Your task to perform on an android device: Open Amazon Image 0: 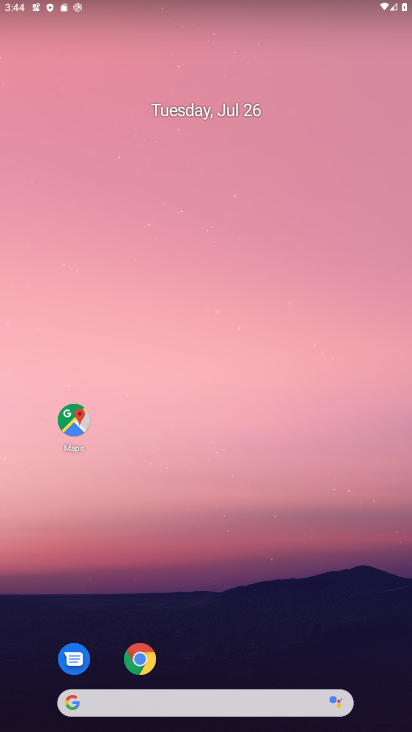
Step 0: click (135, 659)
Your task to perform on an android device: Open Amazon Image 1: 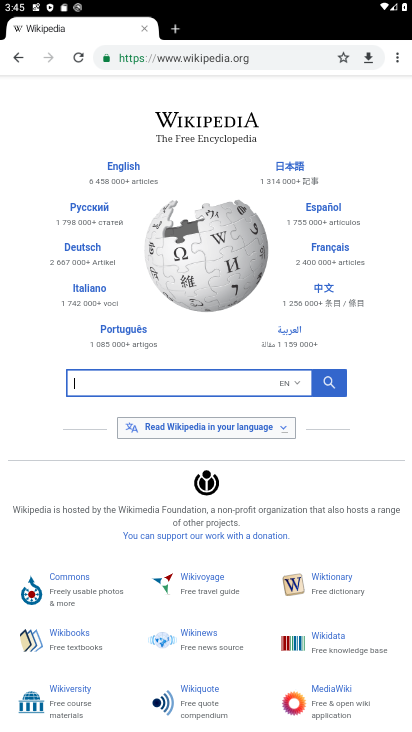
Step 1: click (245, 56)
Your task to perform on an android device: Open Amazon Image 2: 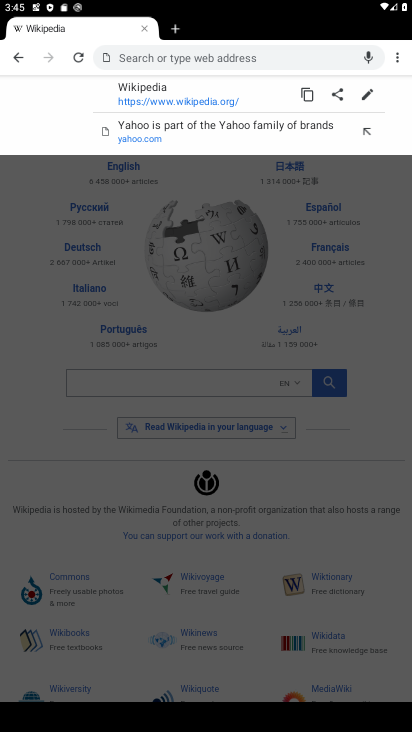
Step 2: type "amazon"
Your task to perform on an android device: Open Amazon Image 3: 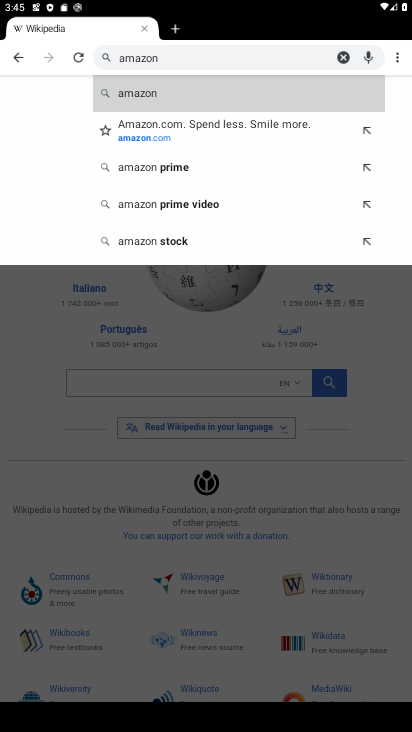
Step 3: click (310, 95)
Your task to perform on an android device: Open Amazon Image 4: 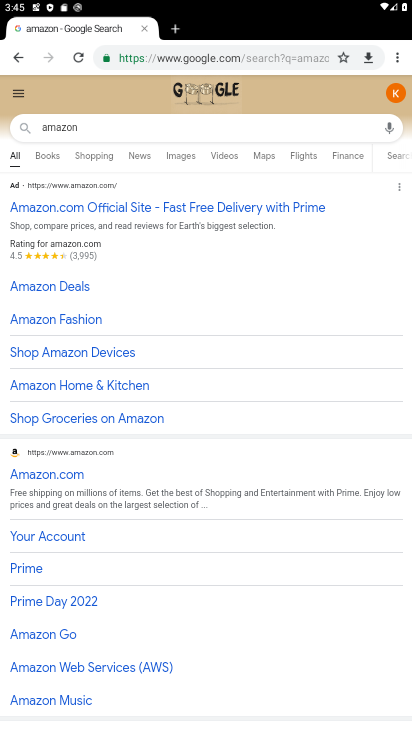
Step 4: click (125, 209)
Your task to perform on an android device: Open Amazon Image 5: 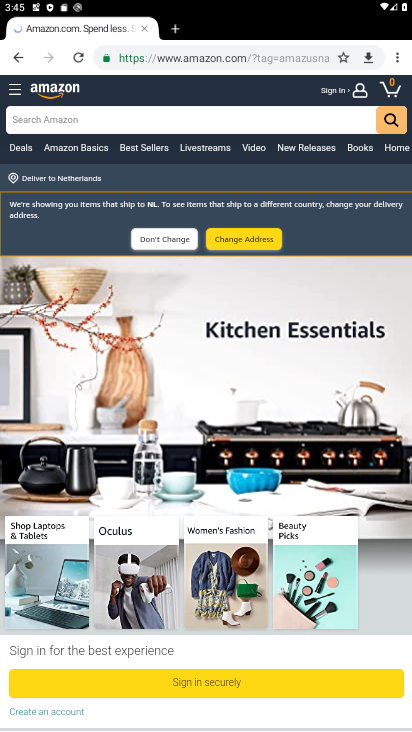
Step 5: task complete